Your task to perform on an android device: set the stopwatch Image 0: 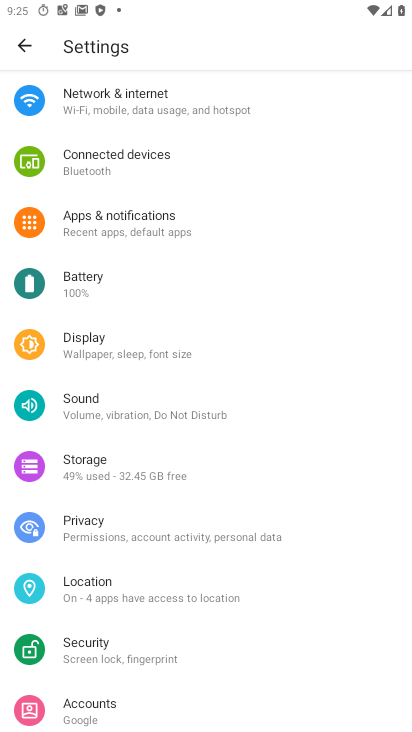
Step 0: press home button
Your task to perform on an android device: set the stopwatch Image 1: 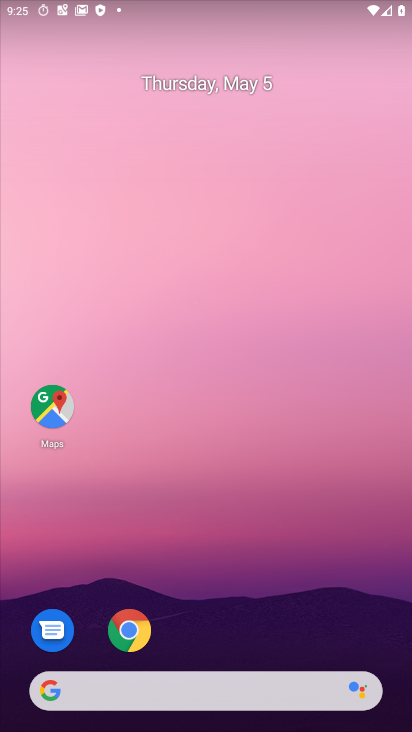
Step 1: drag from (190, 597) to (35, 153)
Your task to perform on an android device: set the stopwatch Image 2: 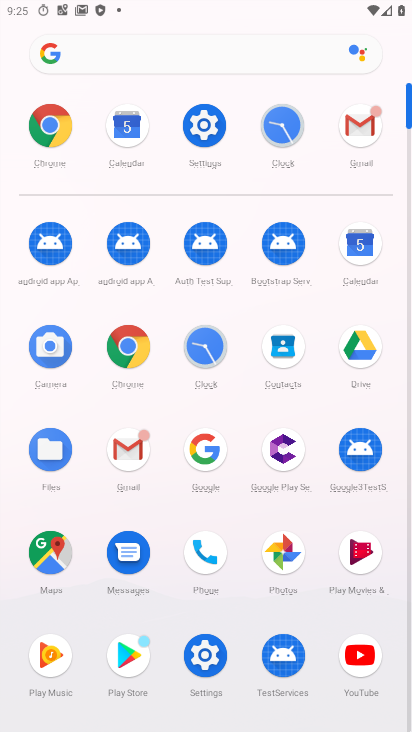
Step 2: click (283, 131)
Your task to perform on an android device: set the stopwatch Image 3: 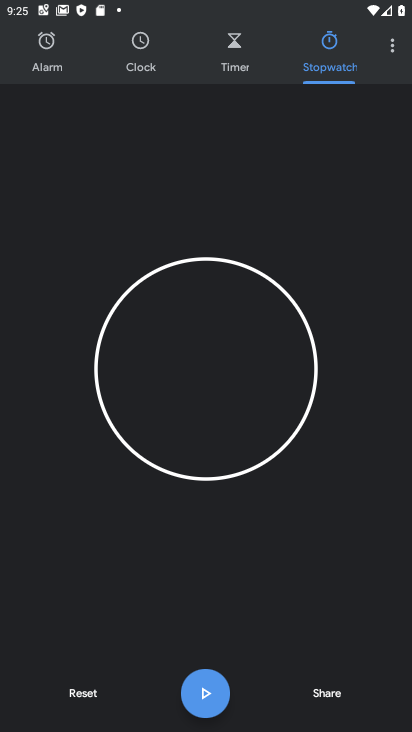
Step 3: click (214, 700)
Your task to perform on an android device: set the stopwatch Image 4: 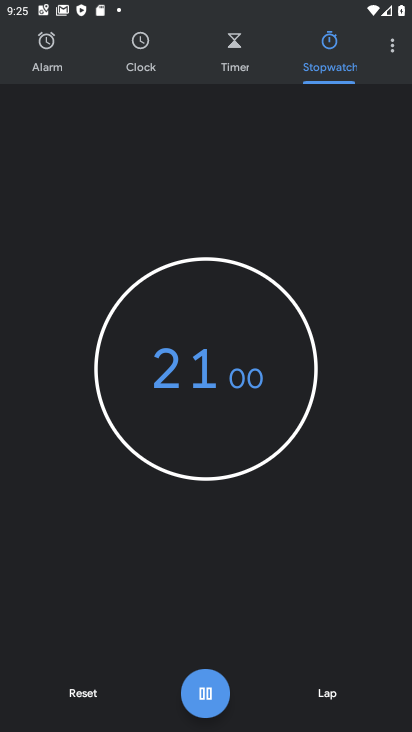
Step 4: click (209, 698)
Your task to perform on an android device: set the stopwatch Image 5: 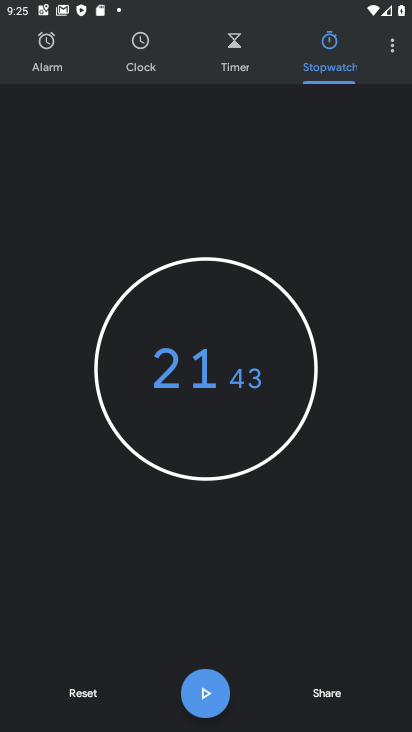
Step 5: task complete